Your task to perform on an android device: turn on javascript in the chrome app Image 0: 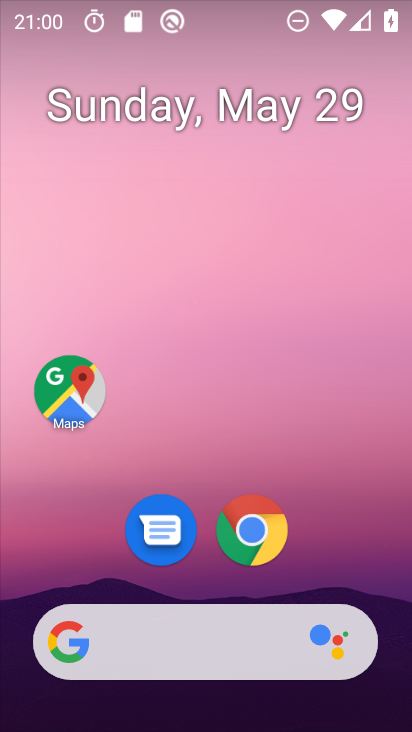
Step 0: drag from (263, 669) to (391, 71)
Your task to perform on an android device: turn on javascript in the chrome app Image 1: 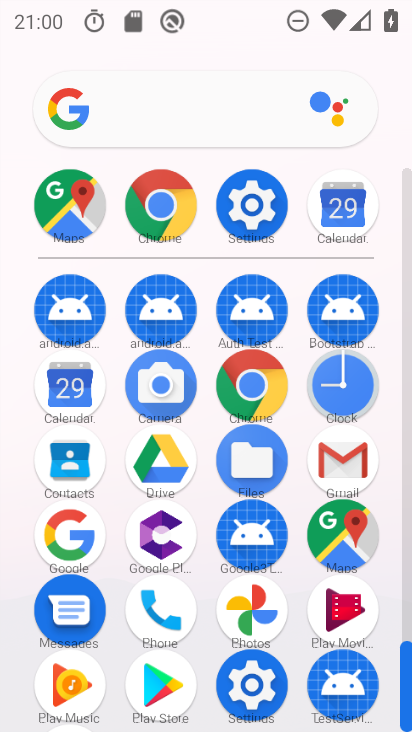
Step 1: click (157, 233)
Your task to perform on an android device: turn on javascript in the chrome app Image 2: 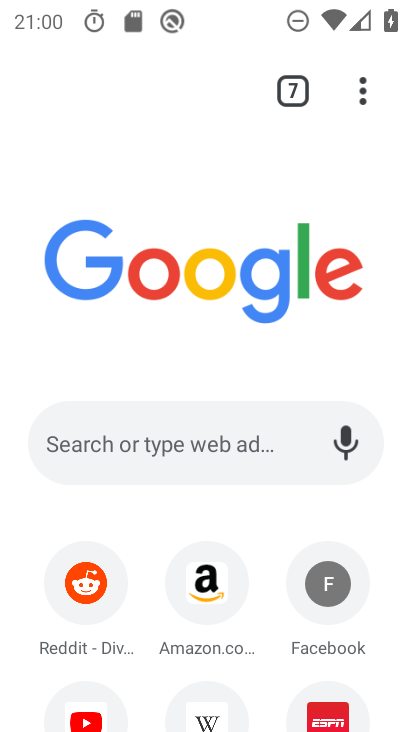
Step 2: click (372, 112)
Your task to perform on an android device: turn on javascript in the chrome app Image 3: 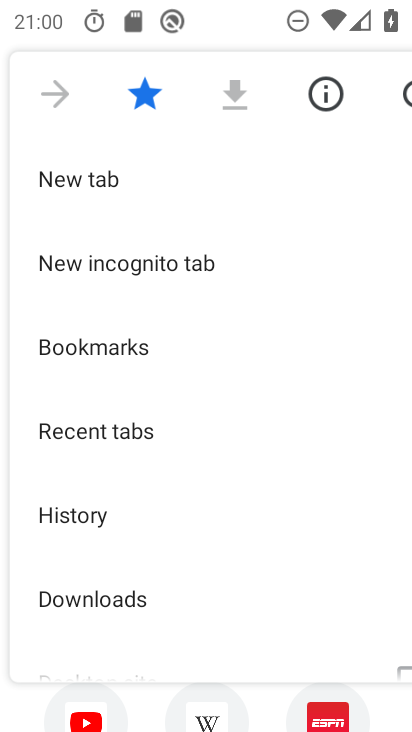
Step 3: drag from (91, 599) to (179, 315)
Your task to perform on an android device: turn on javascript in the chrome app Image 4: 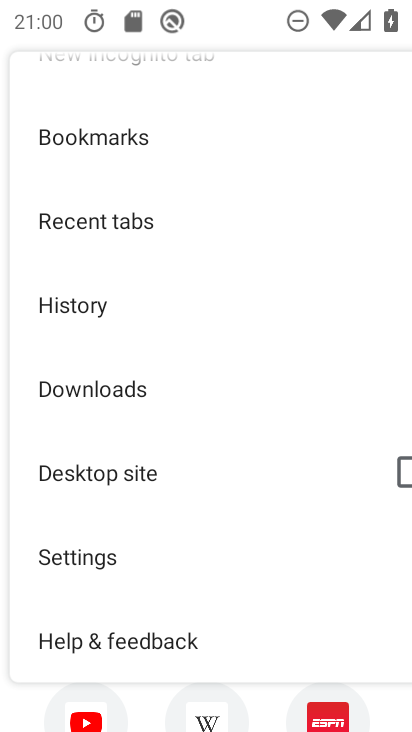
Step 4: click (80, 551)
Your task to perform on an android device: turn on javascript in the chrome app Image 5: 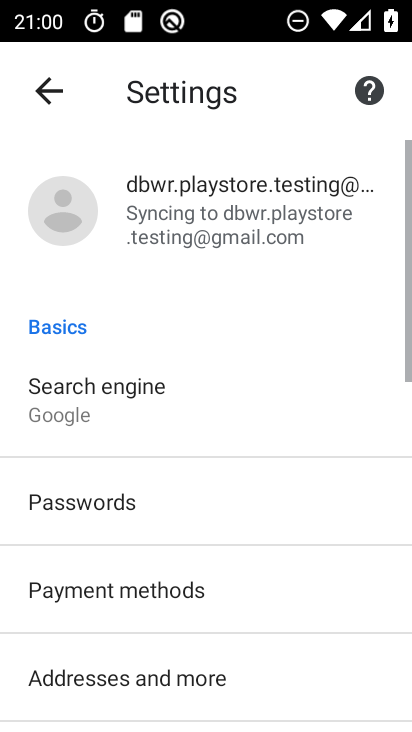
Step 5: drag from (207, 341) to (232, 91)
Your task to perform on an android device: turn on javascript in the chrome app Image 6: 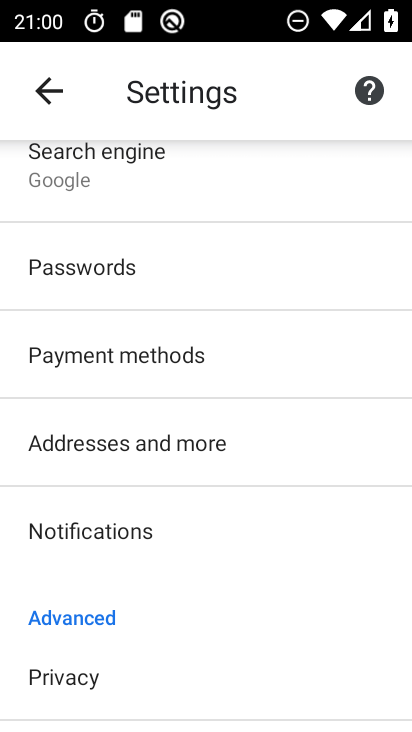
Step 6: drag from (88, 599) to (158, 353)
Your task to perform on an android device: turn on javascript in the chrome app Image 7: 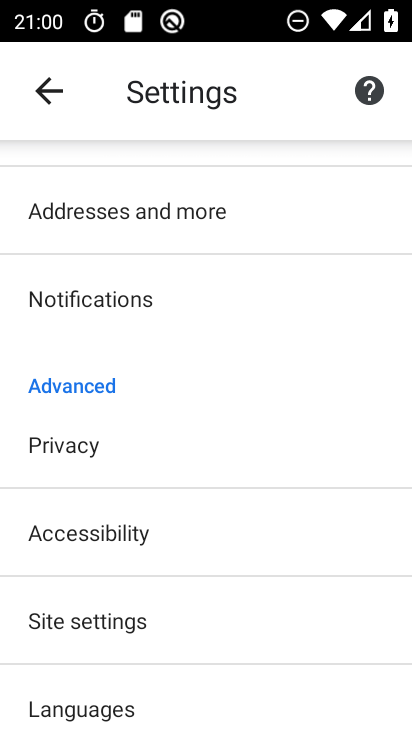
Step 7: click (98, 618)
Your task to perform on an android device: turn on javascript in the chrome app Image 8: 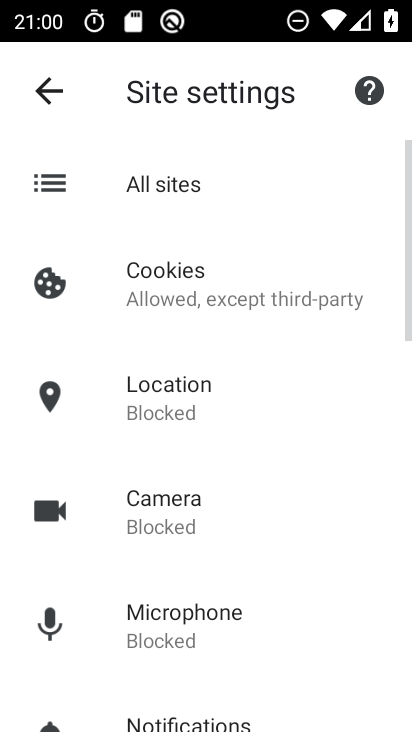
Step 8: drag from (234, 586) to (322, 192)
Your task to perform on an android device: turn on javascript in the chrome app Image 9: 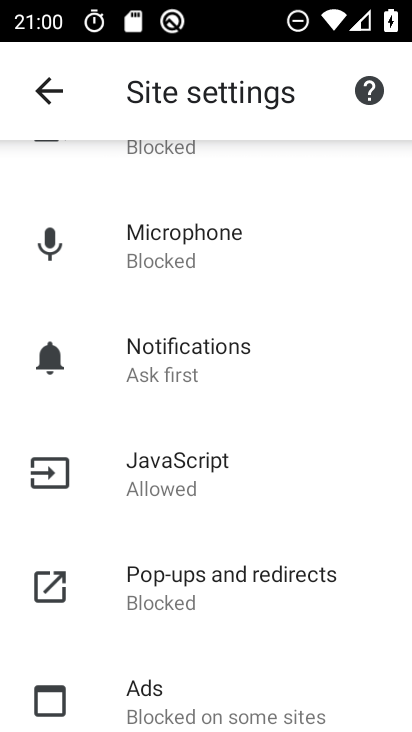
Step 9: drag from (104, 655) to (262, 250)
Your task to perform on an android device: turn on javascript in the chrome app Image 10: 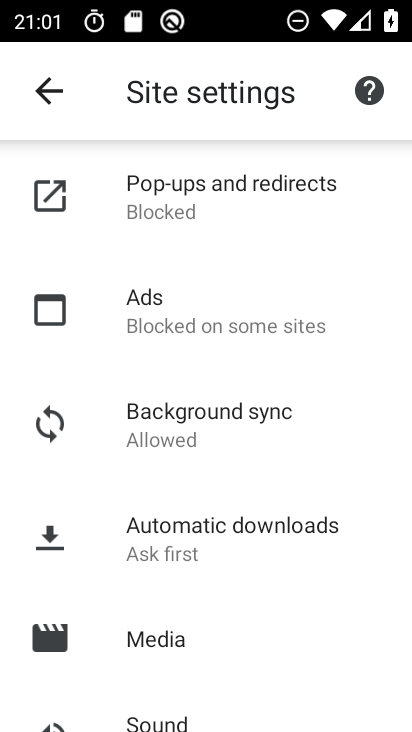
Step 10: drag from (165, 568) to (108, 691)
Your task to perform on an android device: turn on javascript in the chrome app Image 11: 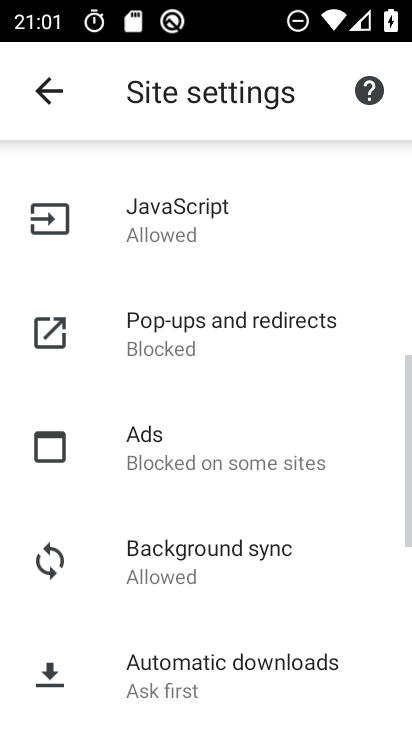
Step 11: click (231, 226)
Your task to perform on an android device: turn on javascript in the chrome app Image 12: 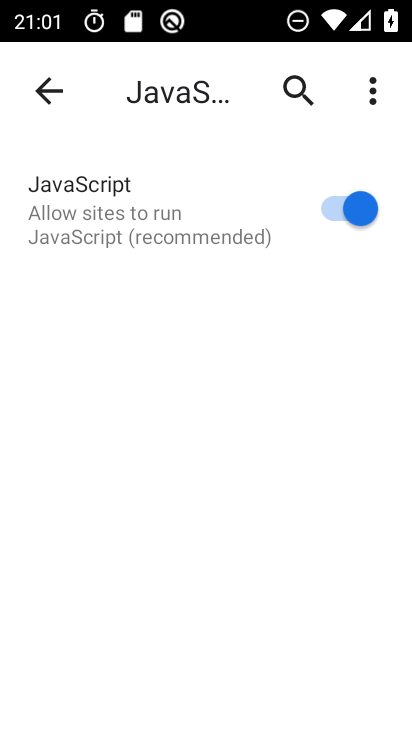
Step 12: task complete